Your task to perform on an android device: change notifications settings Image 0: 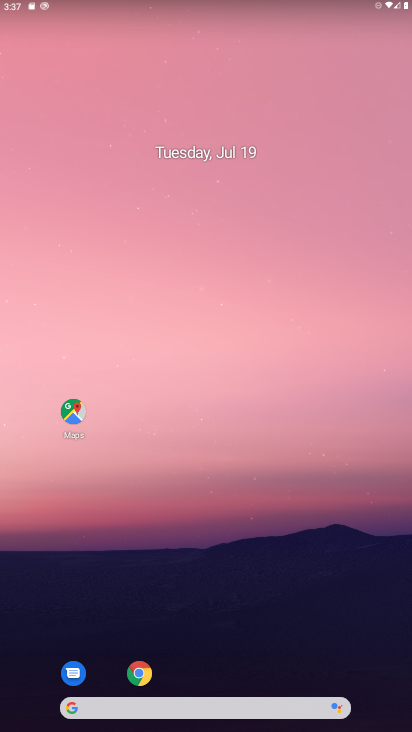
Step 0: drag from (205, 624) to (224, 111)
Your task to perform on an android device: change notifications settings Image 1: 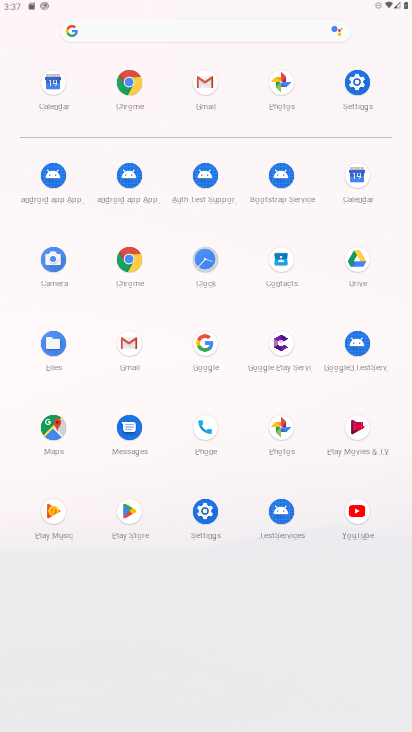
Step 1: click (207, 520)
Your task to perform on an android device: change notifications settings Image 2: 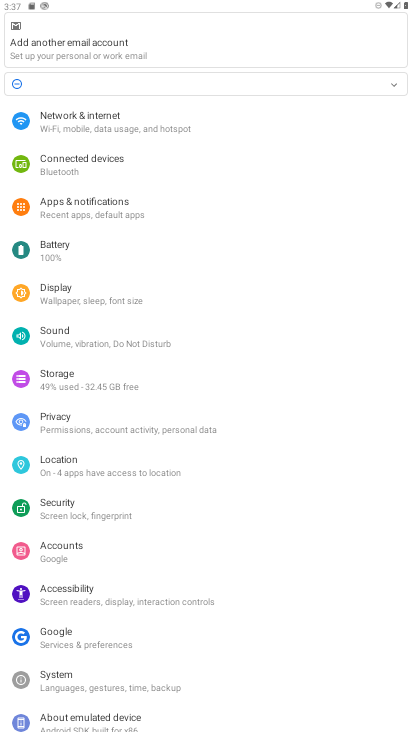
Step 2: click (114, 215)
Your task to perform on an android device: change notifications settings Image 3: 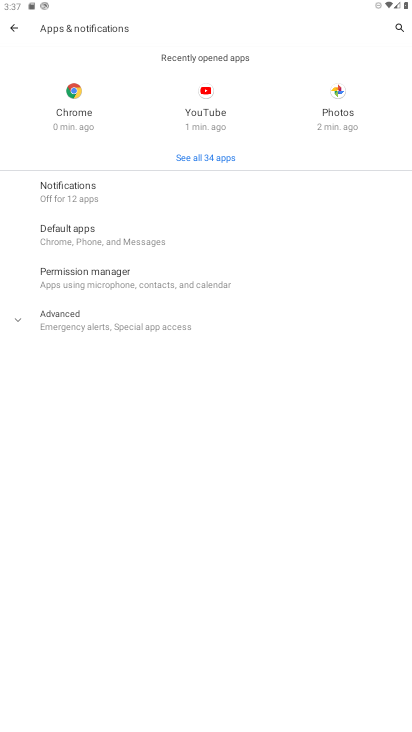
Step 3: click (69, 196)
Your task to perform on an android device: change notifications settings Image 4: 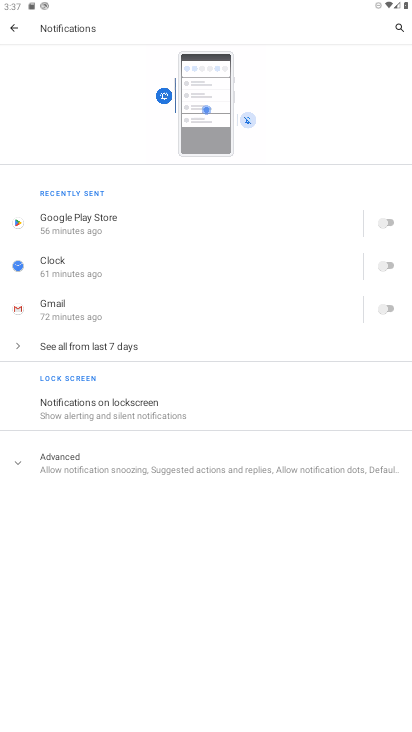
Step 4: click (101, 342)
Your task to perform on an android device: change notifications settings Image 5: 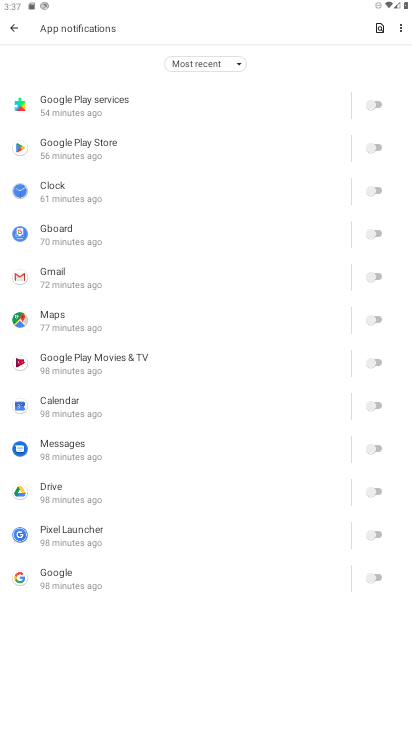
Step 5: click (366, 104)
Your task to perform on an android device: change notifications settings Image 6: 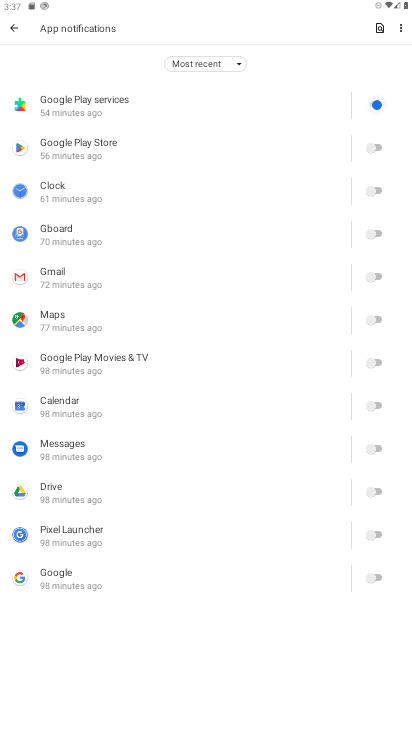
Step 6: click (384, 145)
Your task to perform on an android device: change notifications settings Image 7: 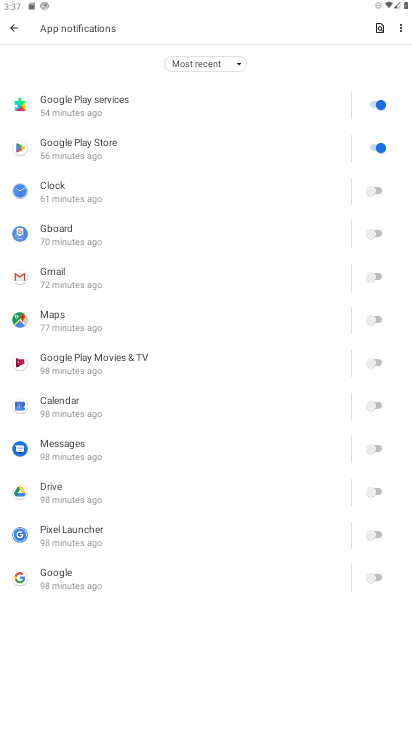
Step 7: click (381, 193)
Your task to perform on an android device: change notifications settings Image 8: 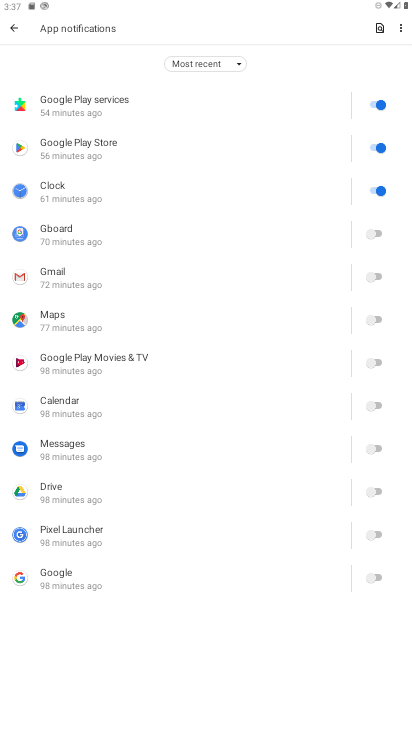
Step 8: click (384, 244)
Your task to perform on an android device: change notifications settings Image 9: 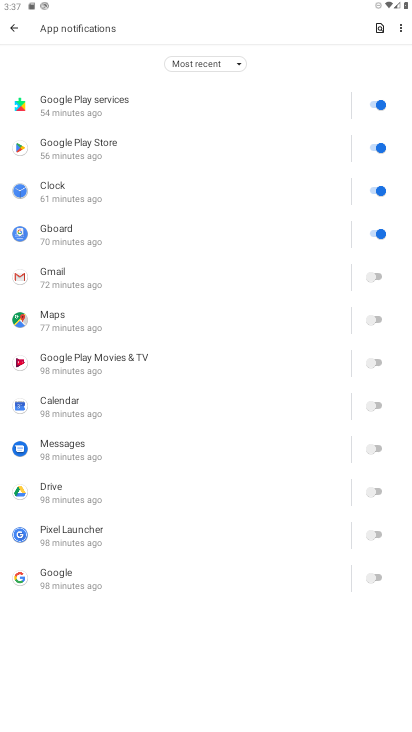
Step 9: click (381, 275)
Your task to perform on an android device: change notifications settings Image 10: 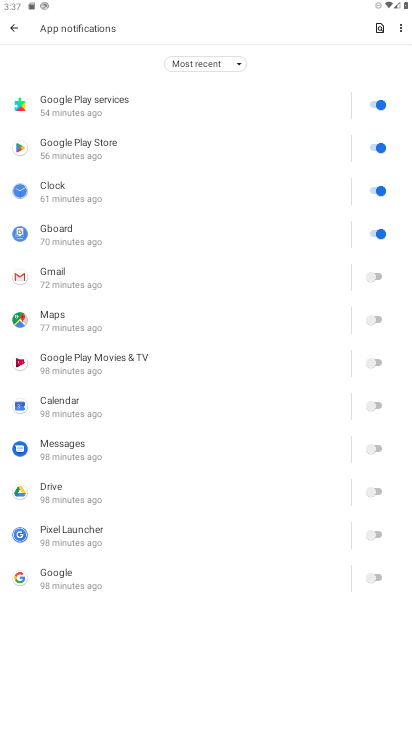
Step 10: click (380, 309)
Your task to perform on an android device: change notifications settings Image 11: 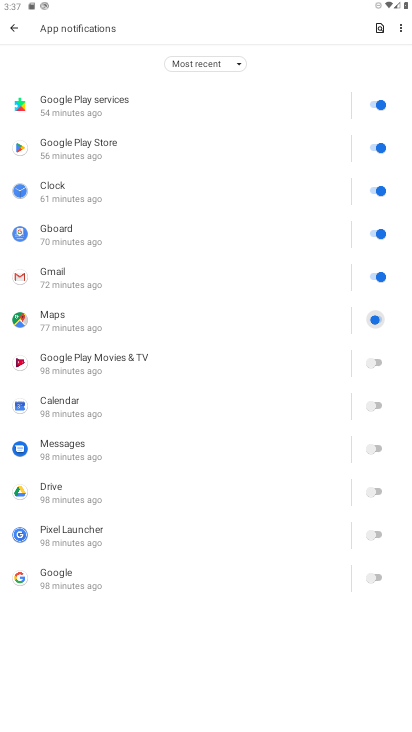
Step 11: click (383, 372)
Your task to perform on an android device: change notifications settings Image 12: 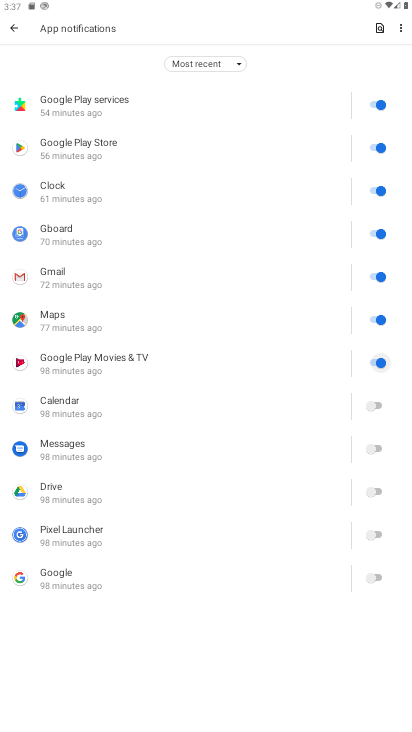
Step 12: click (385, 405)
Your task to perform on an android device: change notifications settings Image 13: 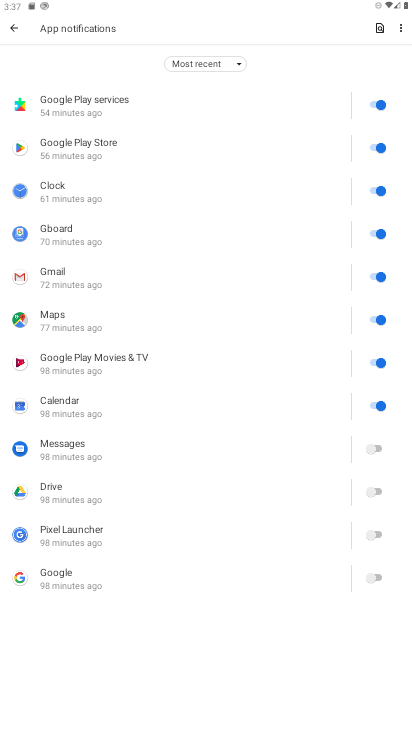
Step 13: click (381, 445)
Your task to perform on an android device: change notifications settings Image 14: 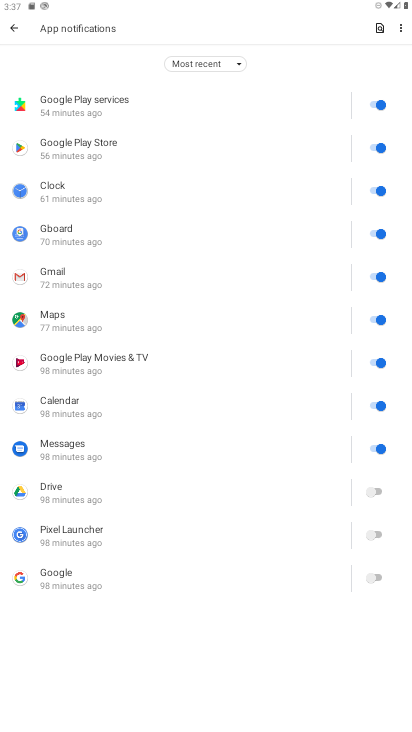
Step 14: click (374, 494)
Your task to perform on an android device: change notifications settings Image 15: 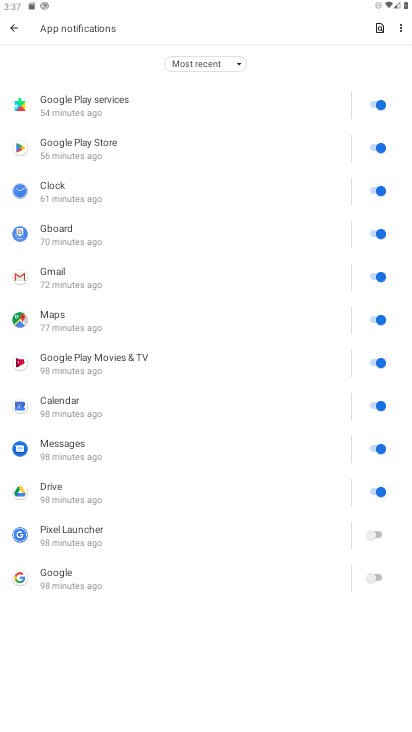
Step 15: click (384, 530)
Your task to perform on an android device: change notifications settings Image 16: 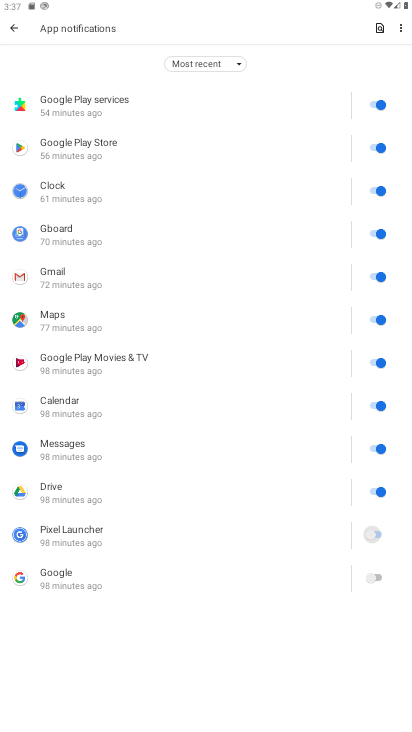
Step 16: click (381, 572)
Your task to perform on an android device: change notifications settings Image 17: 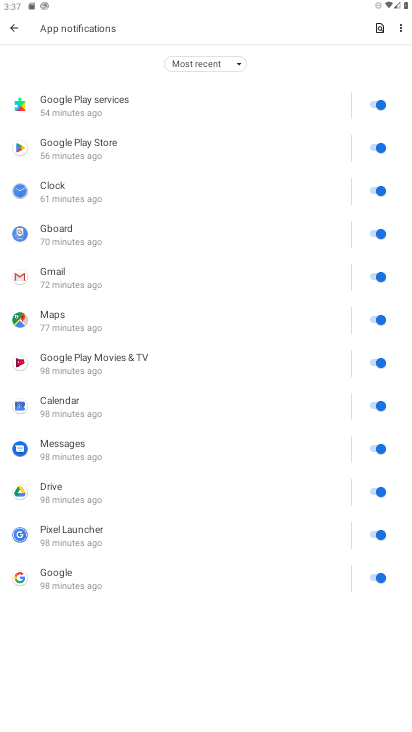
Step 17: task complete